Your task to perform on an android device: Open the web browser Image 0: 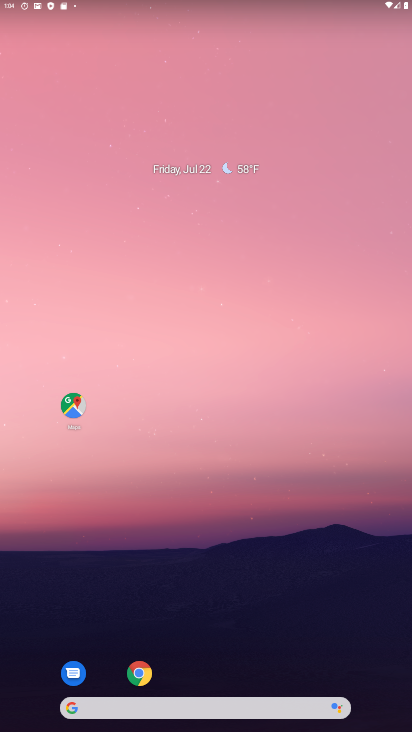
Step 0: click (142, 673)
Your task to perform on an android device: Open the web browser Image 1: 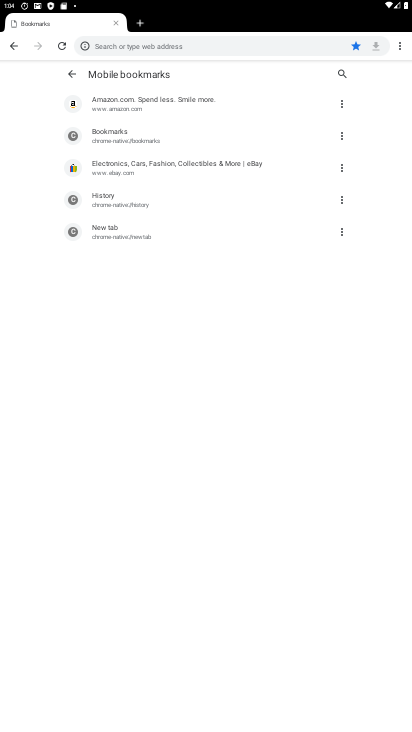
Step 1: task complete